Your task to perform on an android device: Show the shopping cart on amazon.com. Add "usb-c to usb-b" to the cart on amazon.com, then select checkout. Image 0: 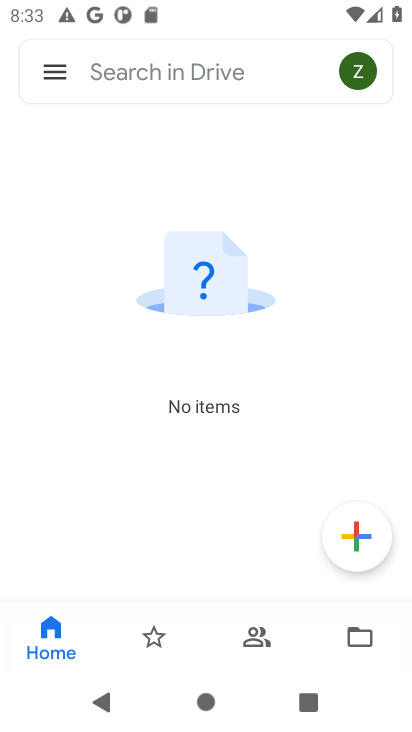
Step 0: press home button
Your task to perform on an android device: Show the shopping cart on amazon.com. Add "usb-c to usb-b" to the cart on amazon.com, then select checkout. Image 1: 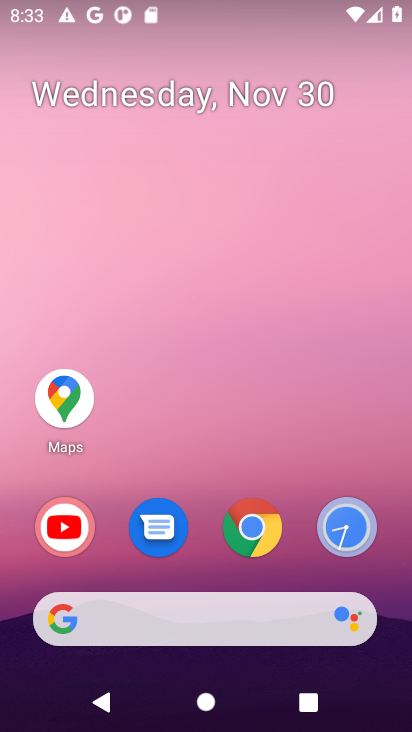
Step 1: click (252, 520)
Your task to perform on an android device: Show the shopping cart on amazon.com. Add "usb-c to usb-b" to the cart on amazon.com, then select checkout. Image 2: 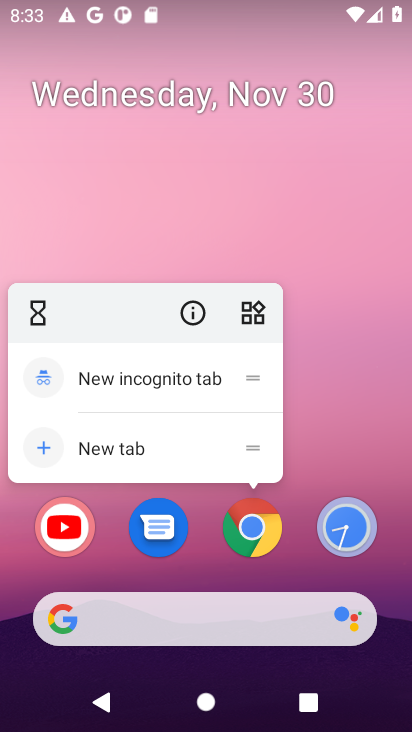
Step 2: click (250, 527)
Your task to perform on an android device: Show the shopping cart on amazon.com. Add "usb-c to usb-b" to the cart on amazon.com, then select checkout. Image 3: 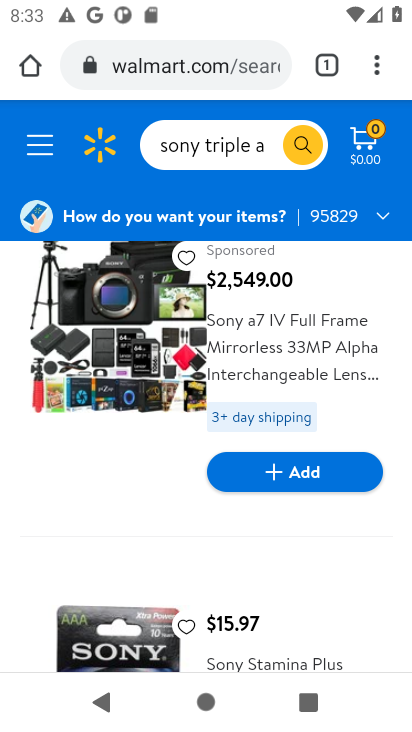
Step 3: click (226, 63)
Your task to perform on an android device: Show the shopping cart on amazon.com. Add "usb-c to usb-b" to the cart on amazon.com, then select checkout. Image 4: 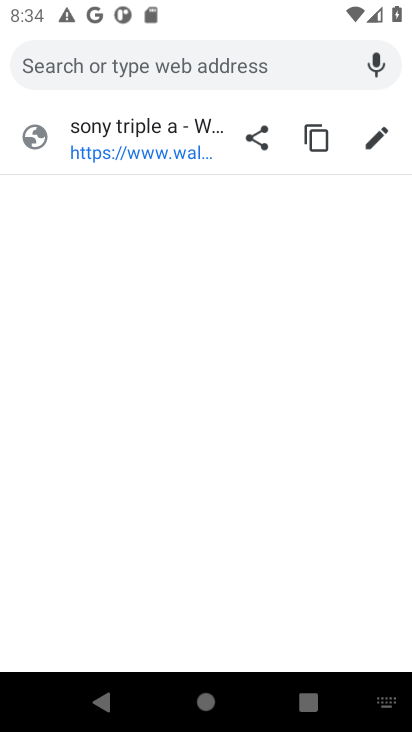
Step 4: press enter
Your task to perform on an android device: Show the shopping cart on amazon.com. Add "usb-c to usb-b" to the cart on amazon.com, then select checkout. Image 5: 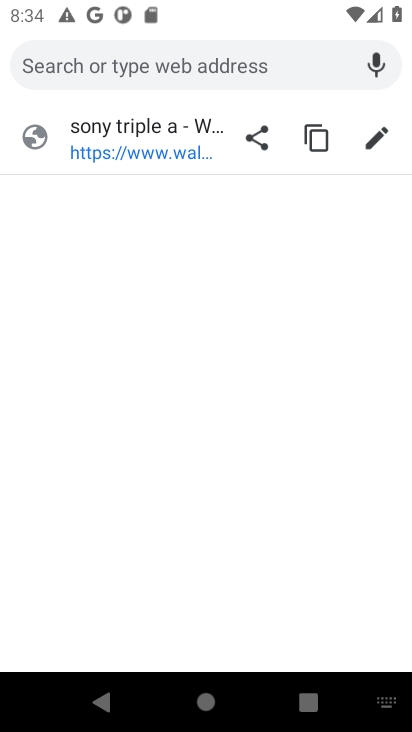
Step 5: type "amazon.com"
Your task to perform on an android device: Show the shopping cart on amazon.com. Add "usb-c to usb-b" to the cart on amazon.com, then select checkout. Image 6: 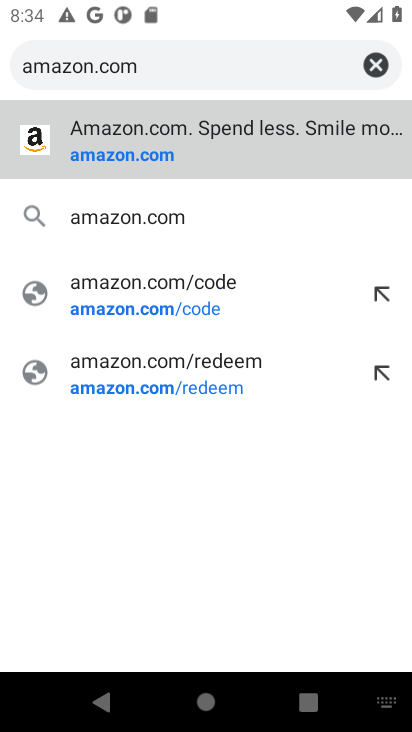
Step 6: click (158, 212)
Your task to perform on an android device: Show the shopping cart on amazon.com. Add "usb-c to usb-b" to the cart on amazon.com, then select checkout. Image 7: 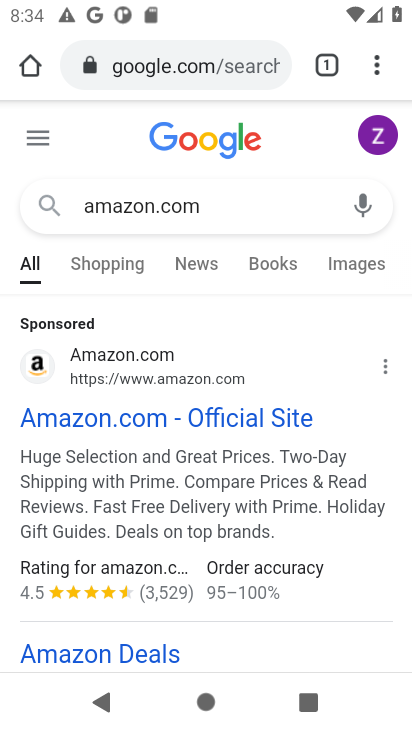
Step 7: click (155, 349)
Your task to perform on an android device: Show the shopping cart on amazon.com. Add "usb-c to usb-b" to the cart on amazon.com, then select checkout. Image 8: 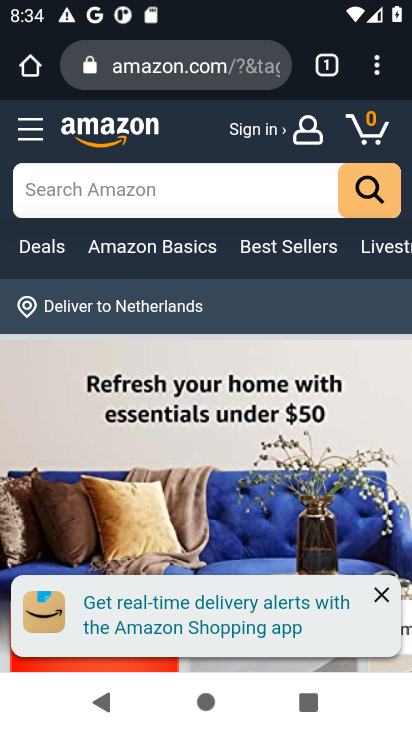
Step 8: click (236, 189)
Your task to perform on an android device: Show the shopping cart on amazon.com. Add "usb-c to usb-b" to the cart on amazon.com, then select checkout. Image 9: 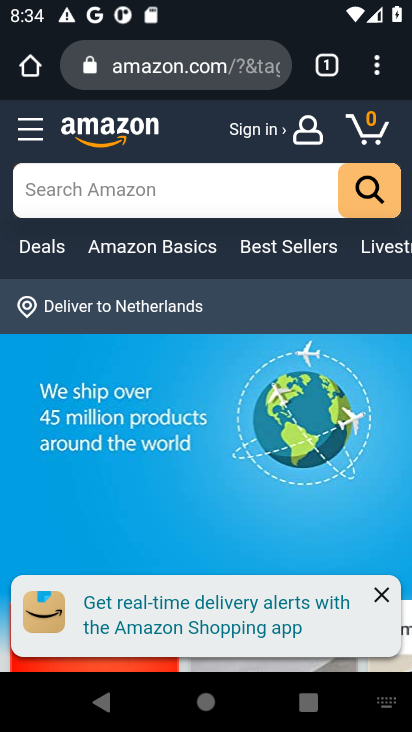
Step 9: press enter
Your task to perform on an android device: Show the shopping cart on amazon.com. Add "usb-c to usb-b" to the cart on amazon.com, then select checkout. Image 10: 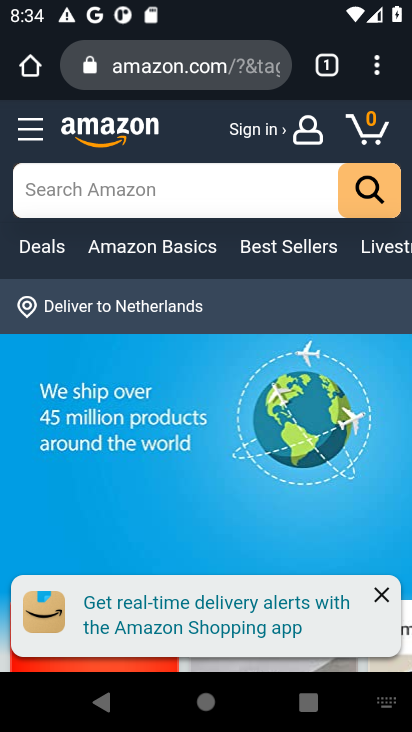
Step 10: type "usb-c to usb-b"
Your task to perform on an android device: Show the shopping cart on amazon.com. Add "usb-c to usb-b" to the cart on amazon.com, then select checkout. Image 11: 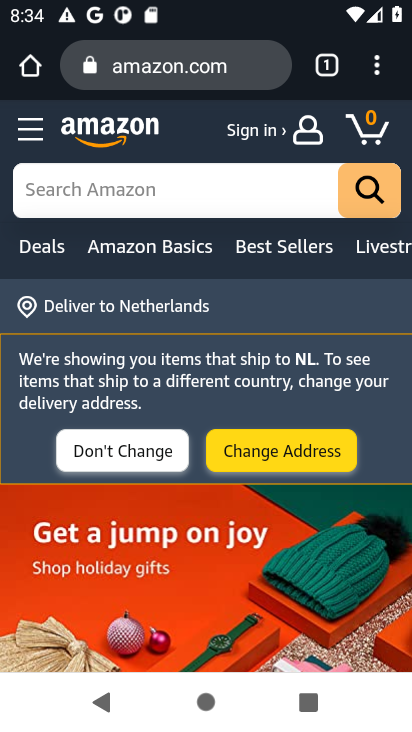
Step 11: click (233, 182)
Your task to perform on an android device: Show the shopping cart on amazon.com. Add "usb-c to usb-b" to the cart on amazon.com, then select checkout. Image 12: 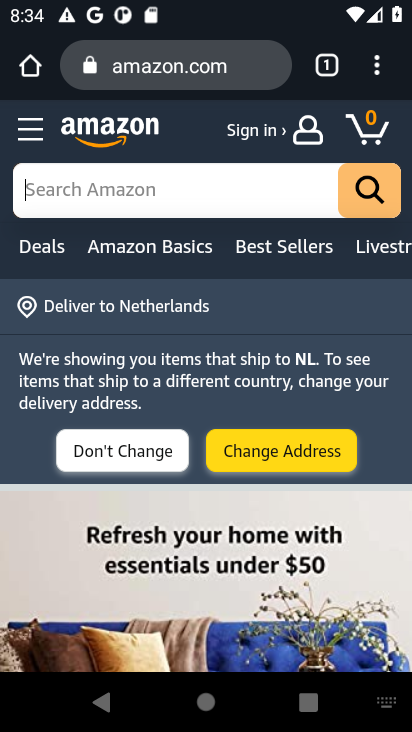
Step 12: type "usb-c to usb-b"
Your task to perform on an android device: Show the shopping cart on amazon.com. Add "usb-c to usb-b" to the cart on amazon.com, then select checkout. Image 13: 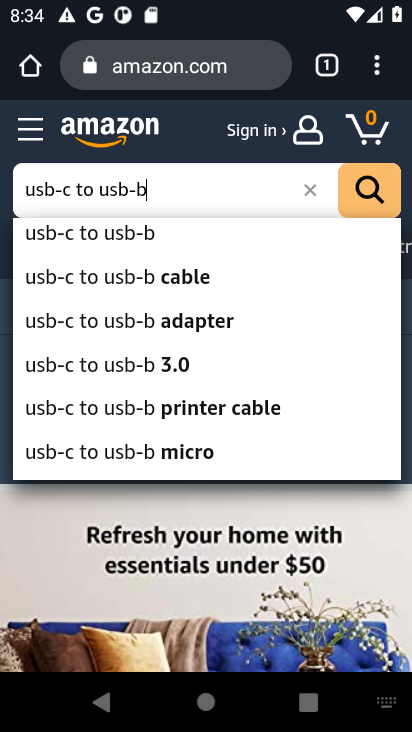
Step 13: press enter
Your task to perform on an android device: Show the shopping cart on amazon.com. Add "usb-c to usb-b" to the cart on amazon.com, then select checkout. Image 14: 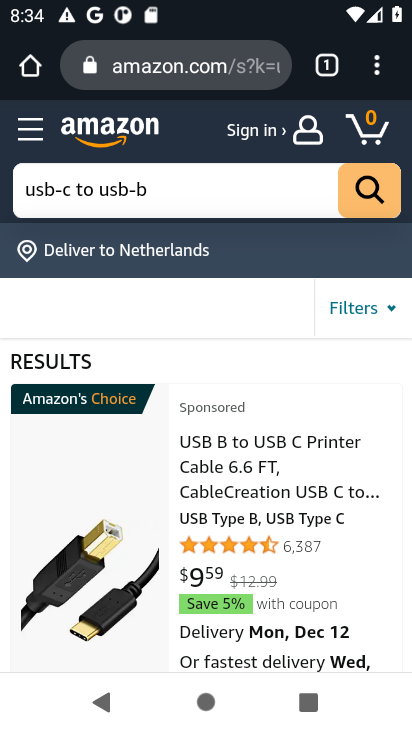
Step 14: click (106, 523)
Your task to perform on an android device: Show the shopping cart on amazon.com. Add "usb-c to usb-b" to the cart on amazon.com, then select checkout. Image 15: 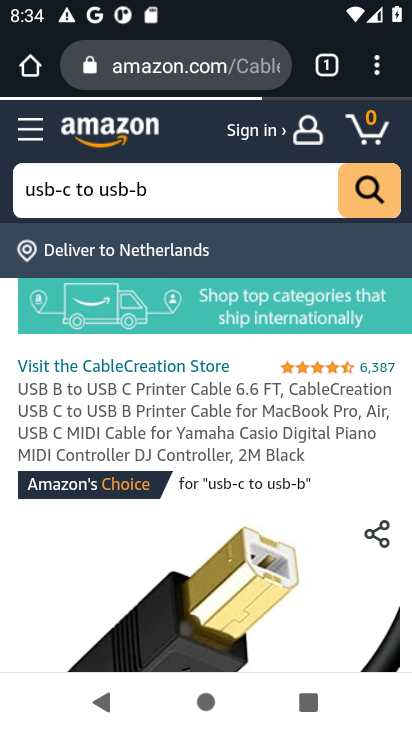
Step 15: drag from (322, 503) to (401, 61)
Your task to perform on an android device: Show the shopping cart on amazon.com. Add "usb-c to usb-b" to the cart on amazon.com, then select checkout. Image 16: 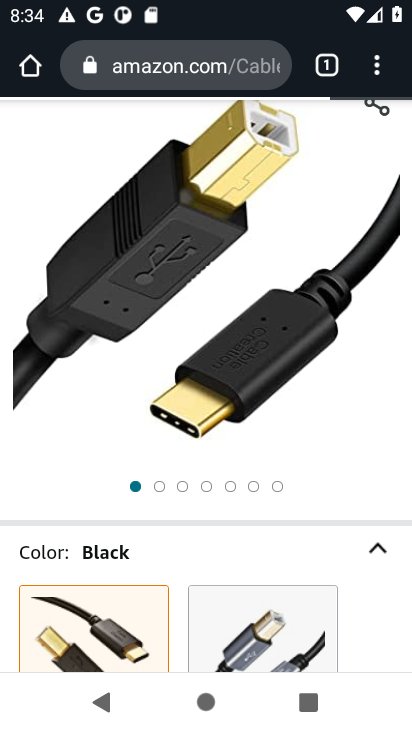
Step 16: drag from (293, 539) to (333, 160)
Your task to perform on an android device: Show the shopping cart on amazon.com. Add "usb-c to usb-b" to the cart on amazon.com, then select checkout. Image 17: 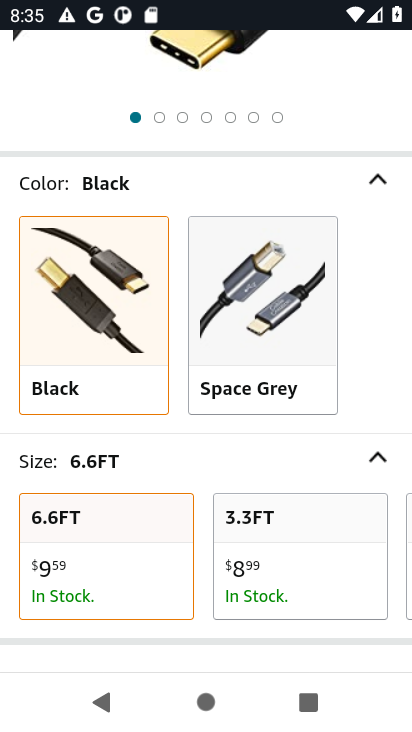
Step 17: drag from (357, 627) to (408, 67)
Your task to perform on an android device: Show the shopping cart on amazon.com. Add "usb-c to usb-b" to the cart on amazon.com, then select checkout. Image 18: 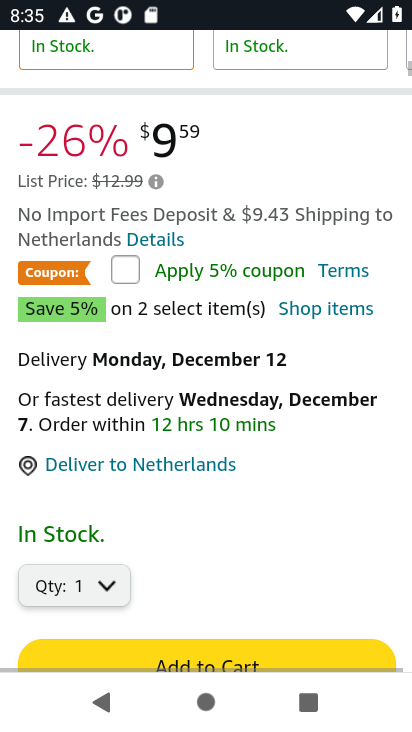
Step 18: drag from (347, 515) to (367, 103)
Your task to perform on an android device: Show the shopping cart on amazon.com. Add "usb-c to usb-b" to the cart on amazon.com, then select checkout. Image 19: 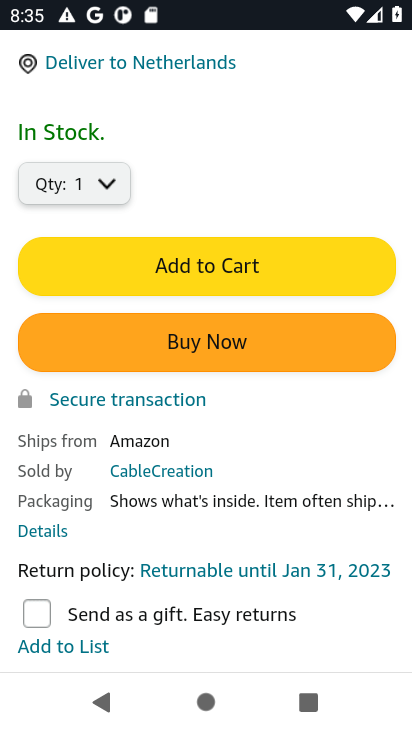
Step 19: click (247, 254)
Your task to perform on an android device: Show the shopping cart on amazon.com. Add "usb-c to usb-b" to the cart on amazon.com, then select checkout. Image 20: 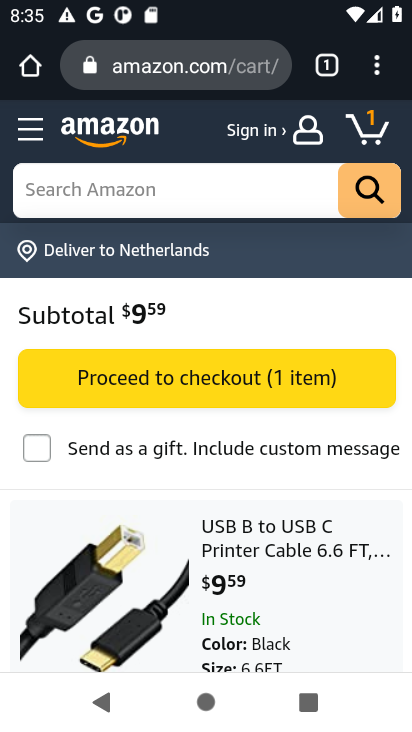
Step 20: click (195, 372)
Your task to perform on an android device: Show the shopping cart on amazon.com. Add "usb-c to usb-b" to the cart on amazon.com, then select checkout. Image 21: 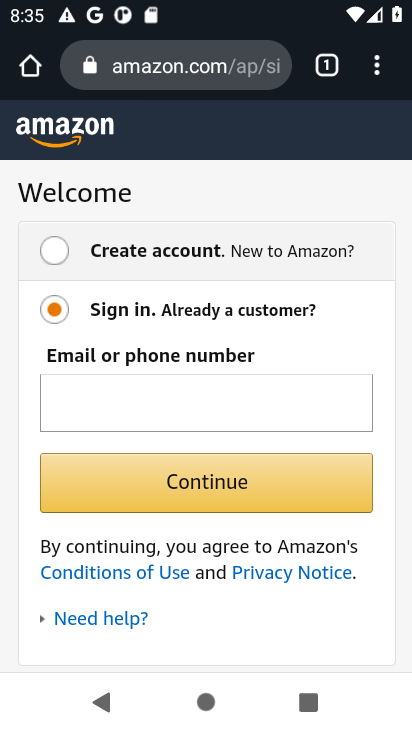
Step 21: task complete